Your task to perform on an android device: Open Chrome and go to settings Image 0: 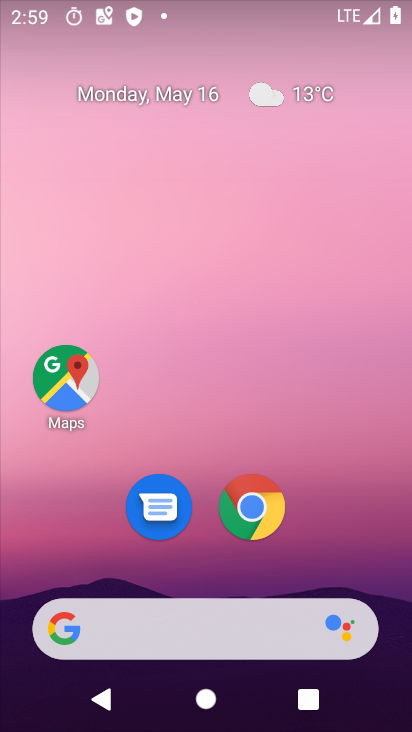
Step 0: drag from (363, 566) to (380, 132)
Your task to perform on an android device: Open Chrome and go to settings Image 1: 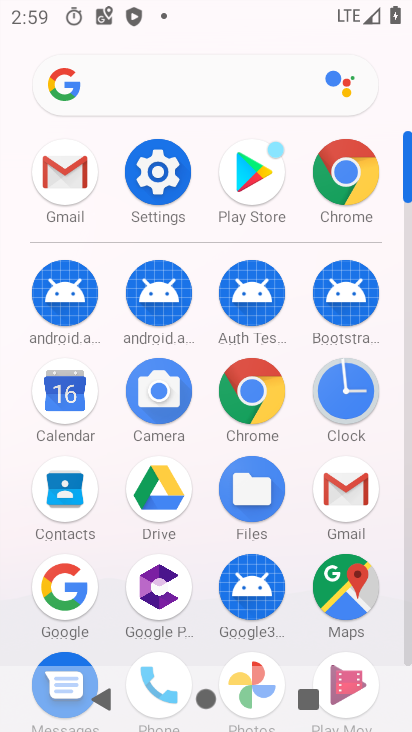
Step 1: click (256, 396)
Your task to perform on an android device: Open Chrome and go to settings Image 2: 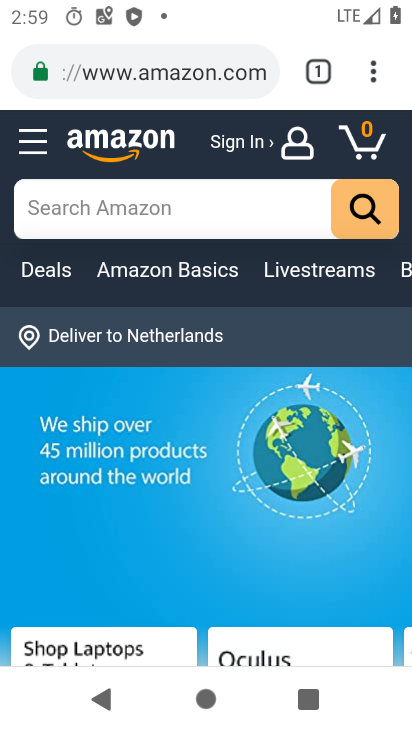
Step 2: click (375, 76)
Your task to perform on an android device: Open Chrome and go to settings Image 3: 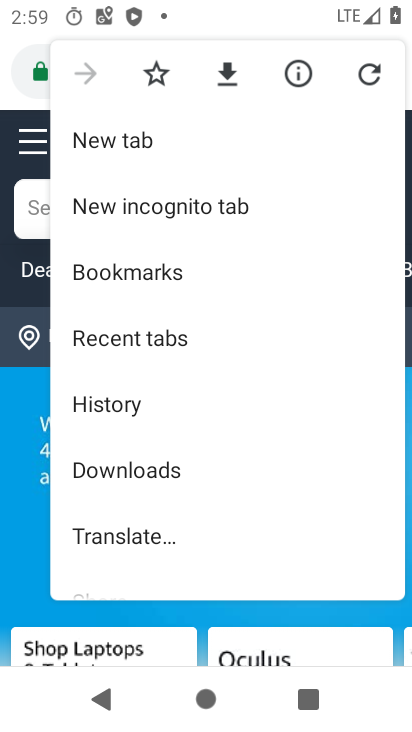
Step 3: drag from (300, 485) to (313, 287)
Your task to perform on an android device: Open Chrome and go to settings Image 4: 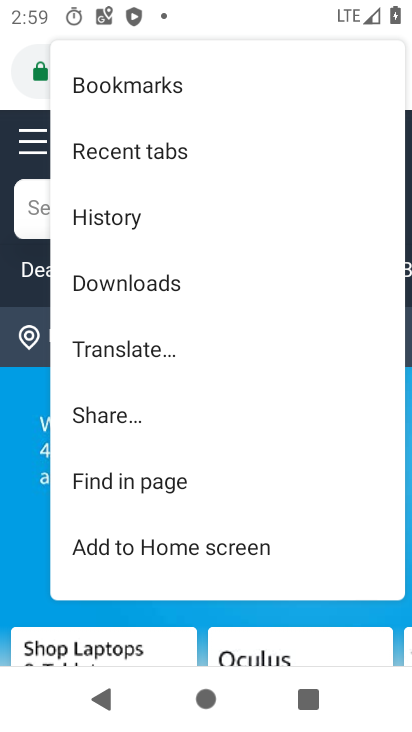
Step 4: drag from (304, 507) to (317, 302)
Your task to perform on an android device: Open Chrome and go to settings Image 5: 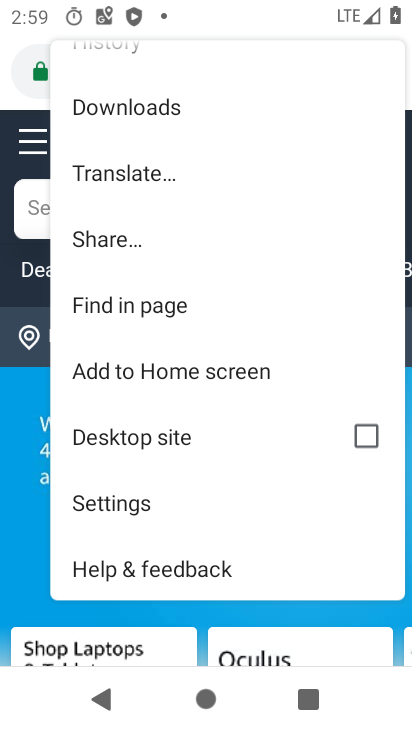
Step 5: click (137, 508)
Your task to perform on an android device: Open Chrome and go to settings Image 6: 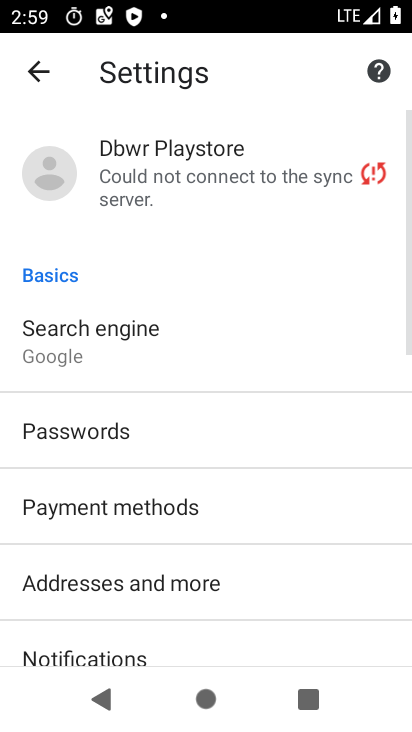
Step 6: task complete